Your task to perform on an android device: change timer sound Image 0: 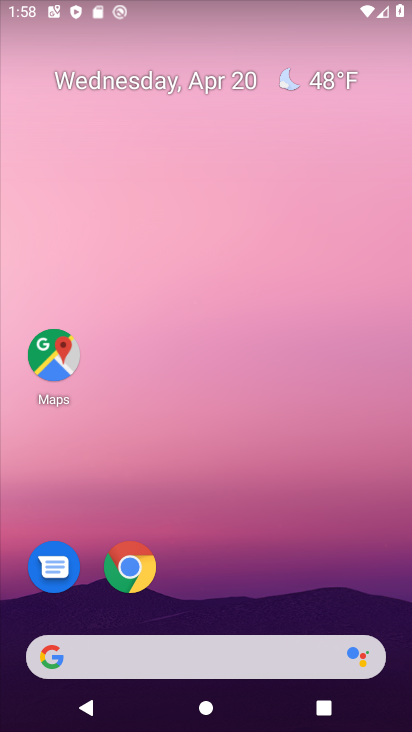
Step 0: drag from (249, 526) to (247, 139)
Your task to perform on an android device: change timer sound Image 1: 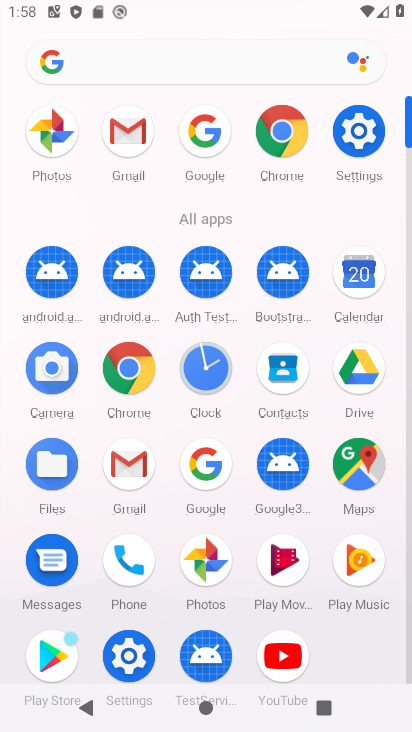
Step 1: click (219, 376)
Your task to perform on an android device: change timer sound Image 2: 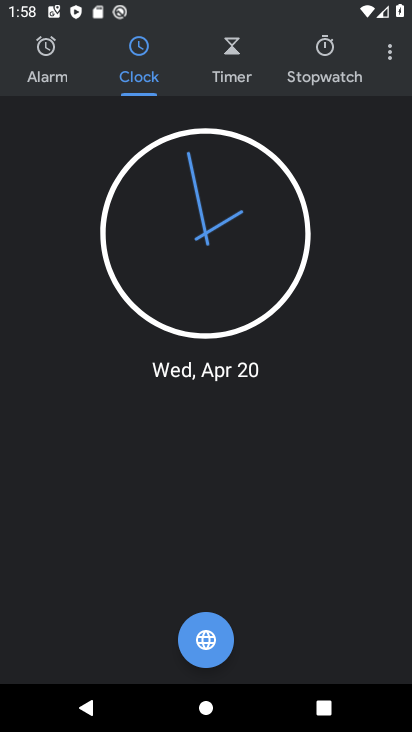
Step 2: click (386, 58)
Your task to perform on an android device: change timer sound Image 3: 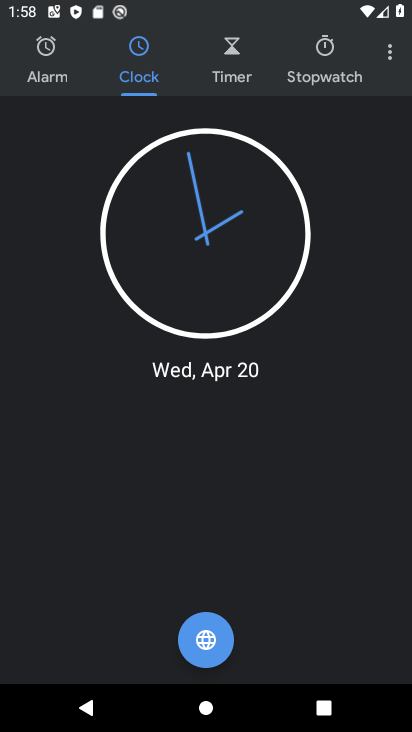
Step 3: click (390, 57)
Your task to perform on an android device: change timer sound Image 4: 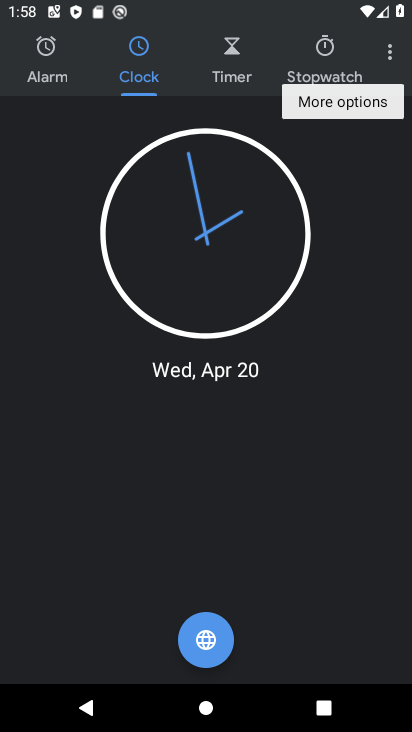
Step 4: click (382, 52)
Your task to perform on an android device: change timer sound Image 5: 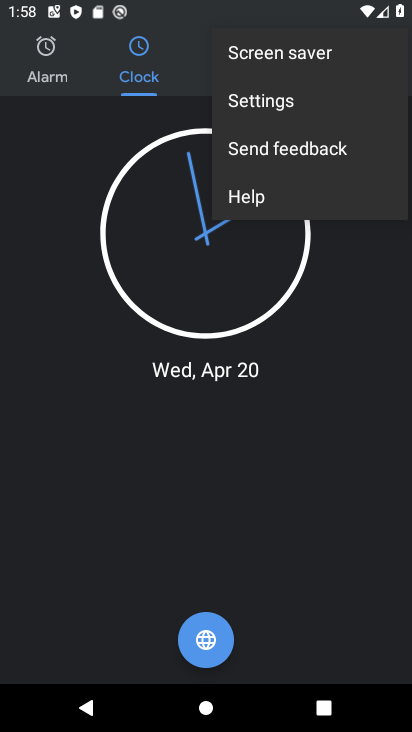
Step 5: click (288, 111)
Your task to perform on an android device: change timer sound Image 6: 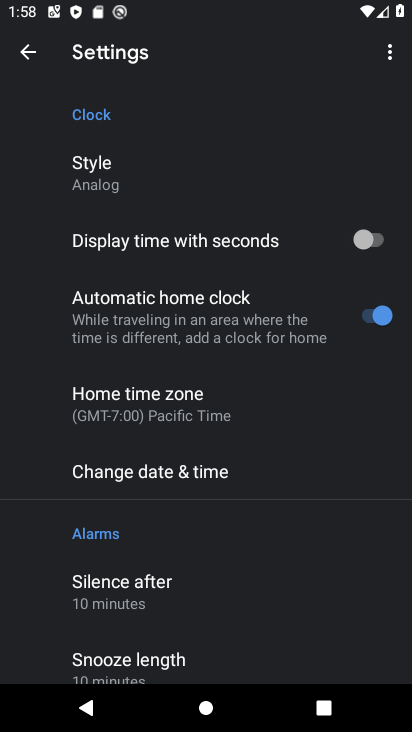
Step 6: drag from (216, 637) to (269, 203)
Your task to perform on an android device: change timer sound Image 7: 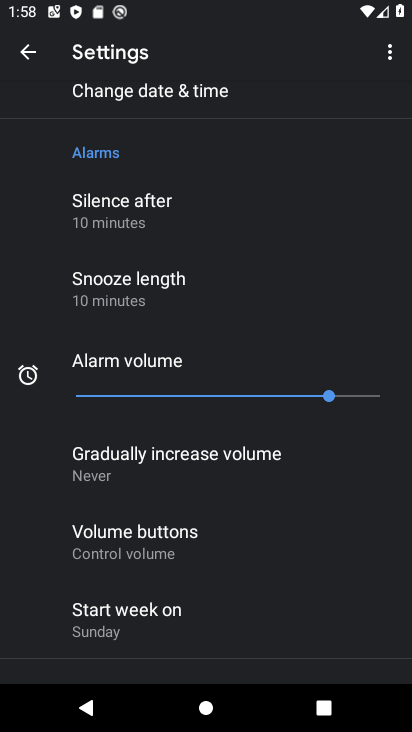
Step 7: drag from (218, 504) to (241, 229)
Your task to perform on an android device: change timer sound Image 8: 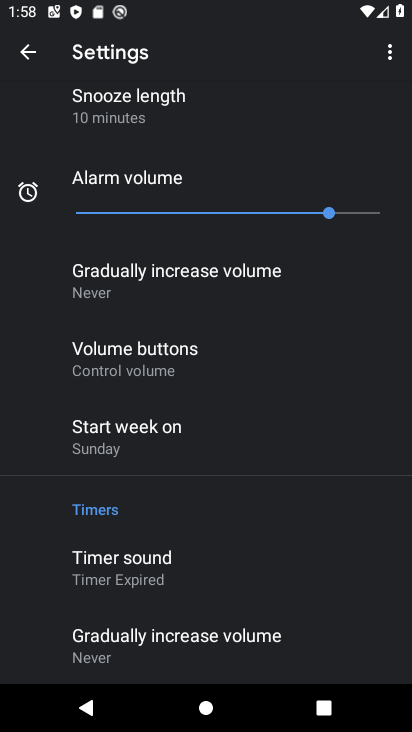
Step 8: click (179, 562)
Your task to perform on an android device: change timer sound Image 9: 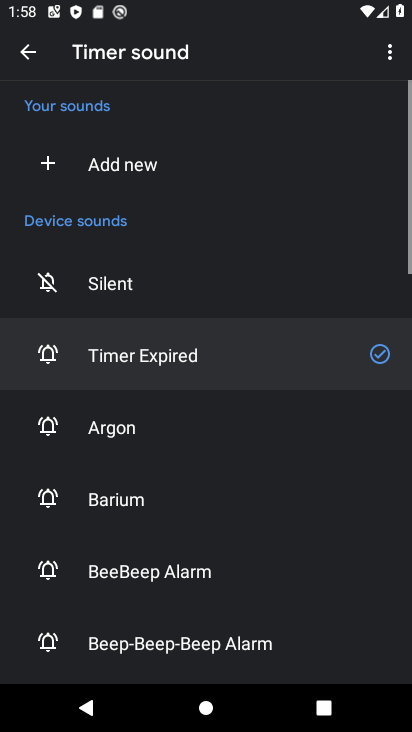
Step 9: click (126, 445)
Your task to perform on an android device: change timer sound Image 10: 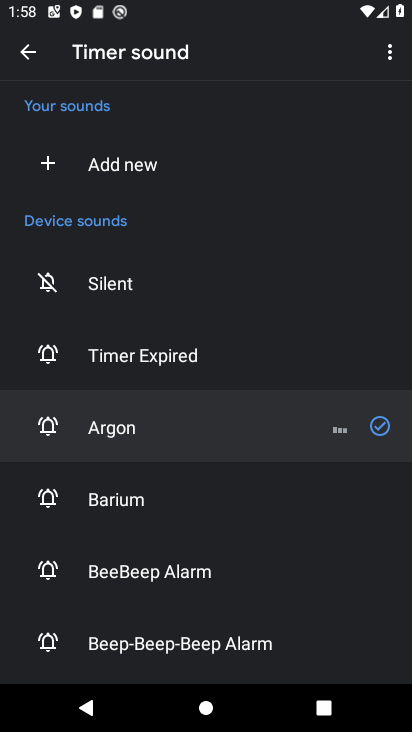
Step 10: task complete